Your task to perform on an android device: Empty the shopping cart on walmart. Search for "beats solo 3" on walmart, select the first entry, add it to the cart, then select checkout. Image 0: 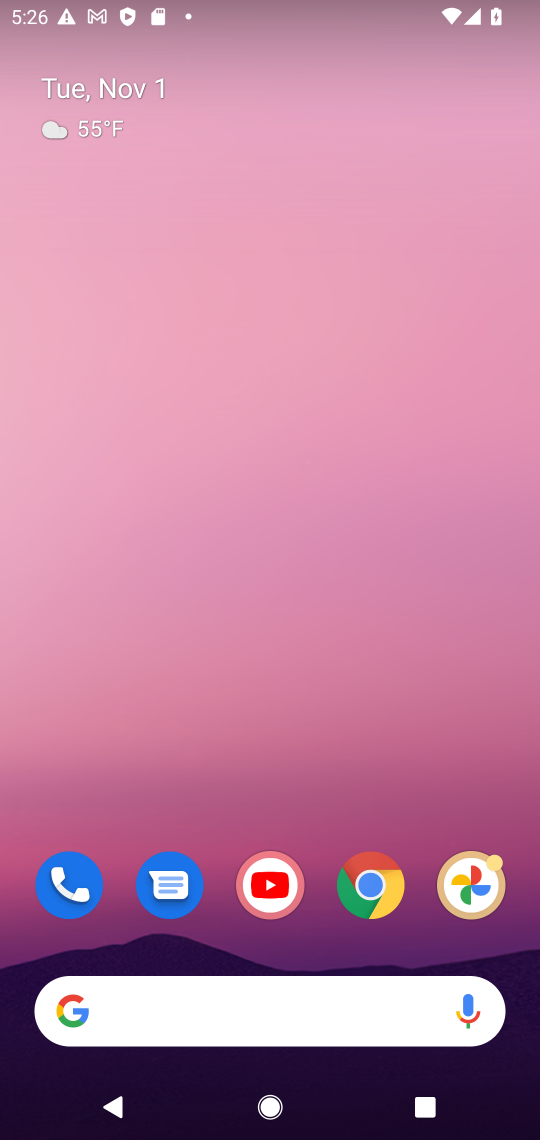
Step 0: click (373, 887)
Your task to perform on an android device: Empty the shopping cart on walmart. Search for "beats solo 3" on walmart, select the first entry, add it to the cart, then select checkout. Image 1: 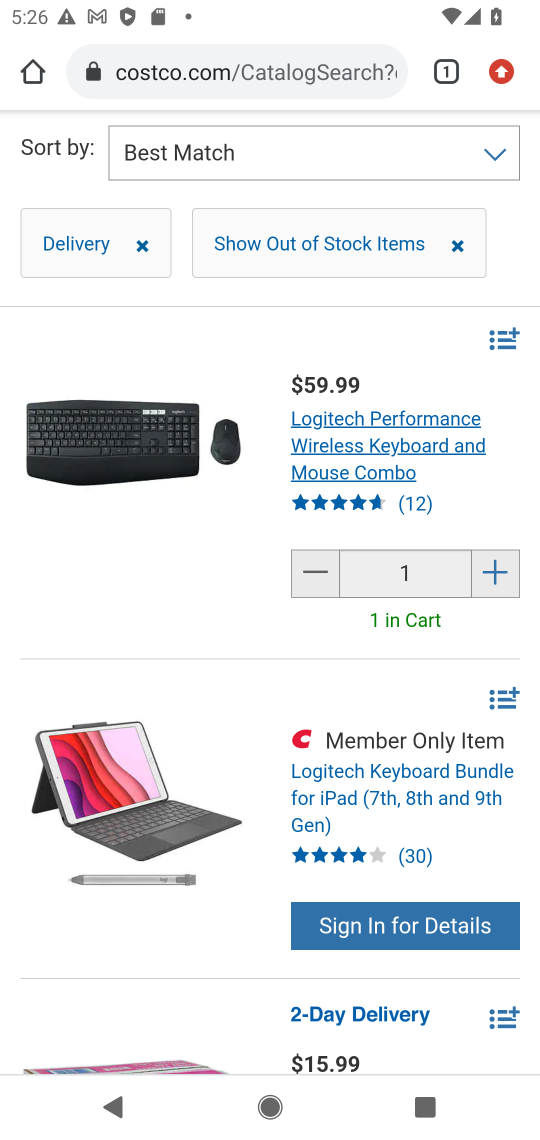
Step 1: click (270, 48)
Your task to perform on an android device: Empty the shopping cart on walmart. Search for "beats solo 3" on walmart, select the first entry, add it to the cart, then select checkout. Image 2: 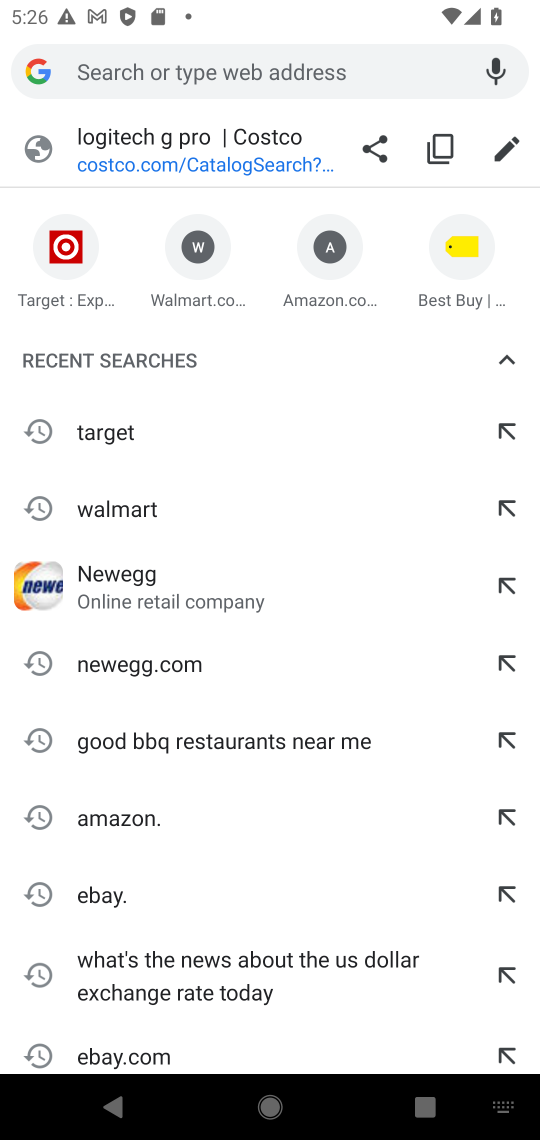
Step 2: click (123, 511)
Your task to perform on an android device: Empty the shopping cart on walmart. Search for "beats solo 3" on walmart, select the first entry, add it to the cart, then select checkout. Image 3: 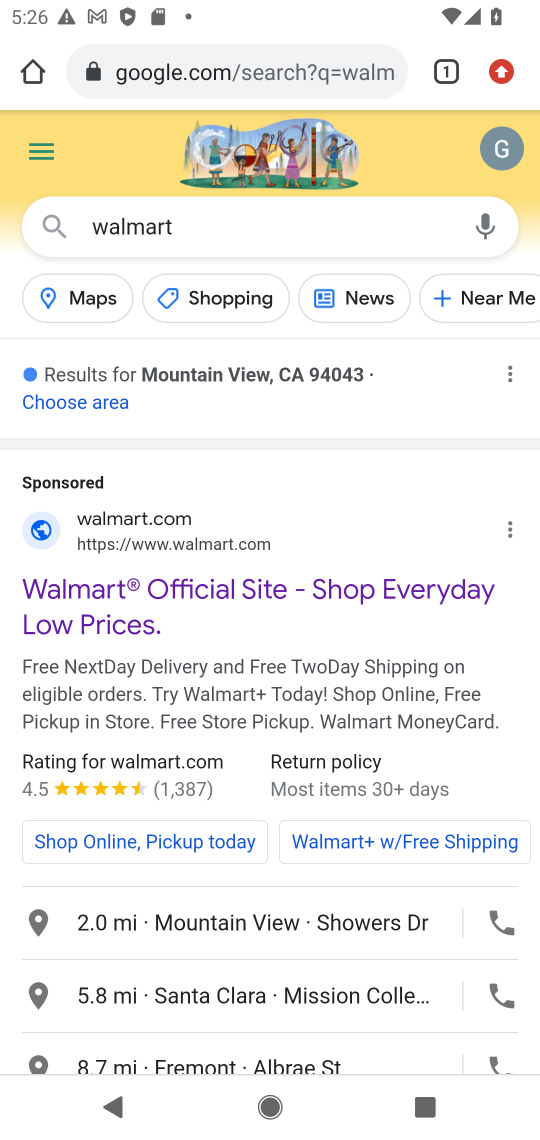
Step 3: click (90, 594)
Your task to perform on an android device: Empty the shopping cart on walmart. Search for "beats solo 3" on walmart, select the first entry, add it to the cart, then select checkout. Image 4: 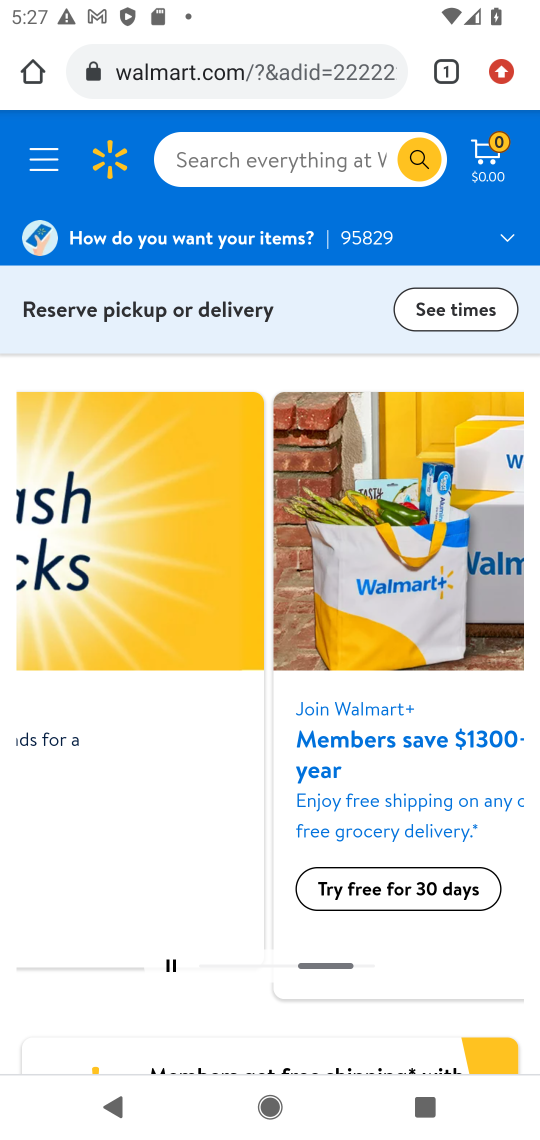
Step 4: click (490, 152)
Your task to perform on an android device: Empty the shopping cart on walmart. Search for "beats solo 3" on walmart, select the first entry, add it to the cart, then select checkout. Image 5: 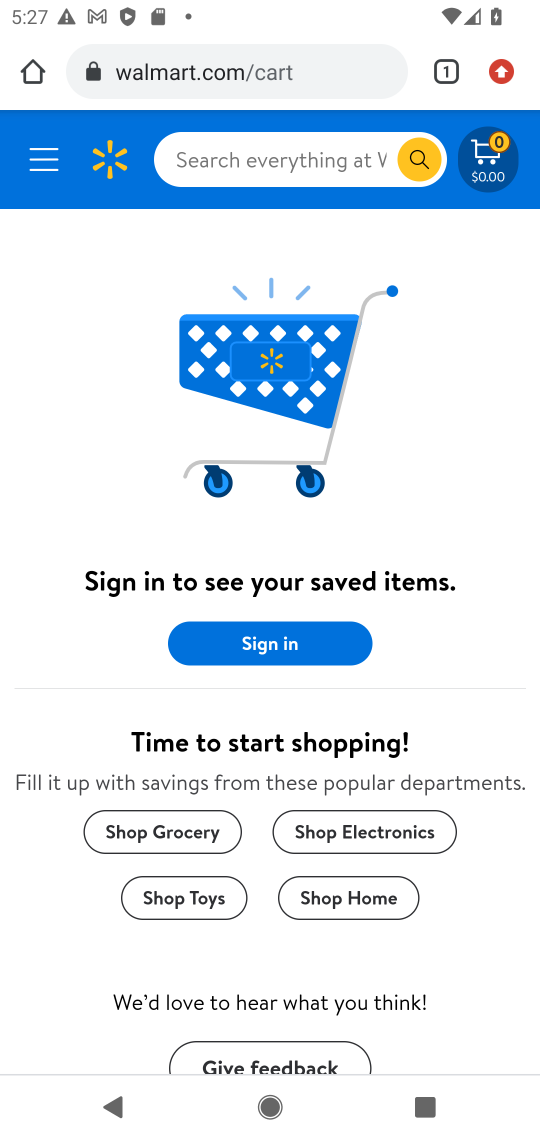
Step 5: click (221, 147)
Your task to perform on an android device: Empty the shopping cart on walmart. Search for "beats solo 3" on walmart, select the first entry, add it to the cart, then select checkout. Image 6: 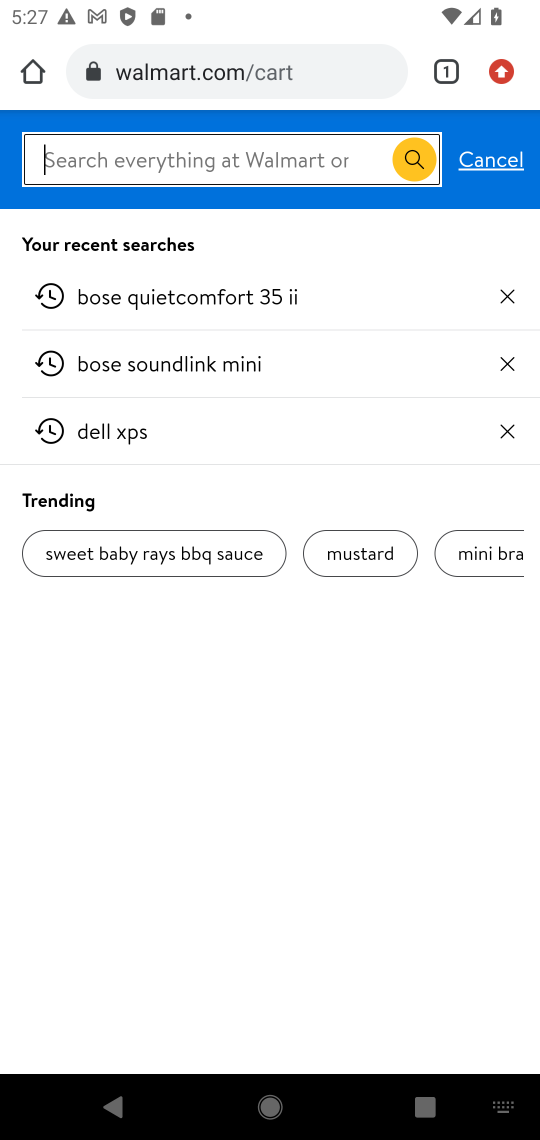
Step 6: type "beats solo 3"
Your task to perform on an android device: Empty the shopping cart on walmart. Search for "beats solo 3" on walmart, select the first entry, add it to the cart, then select checkout. Image 7: 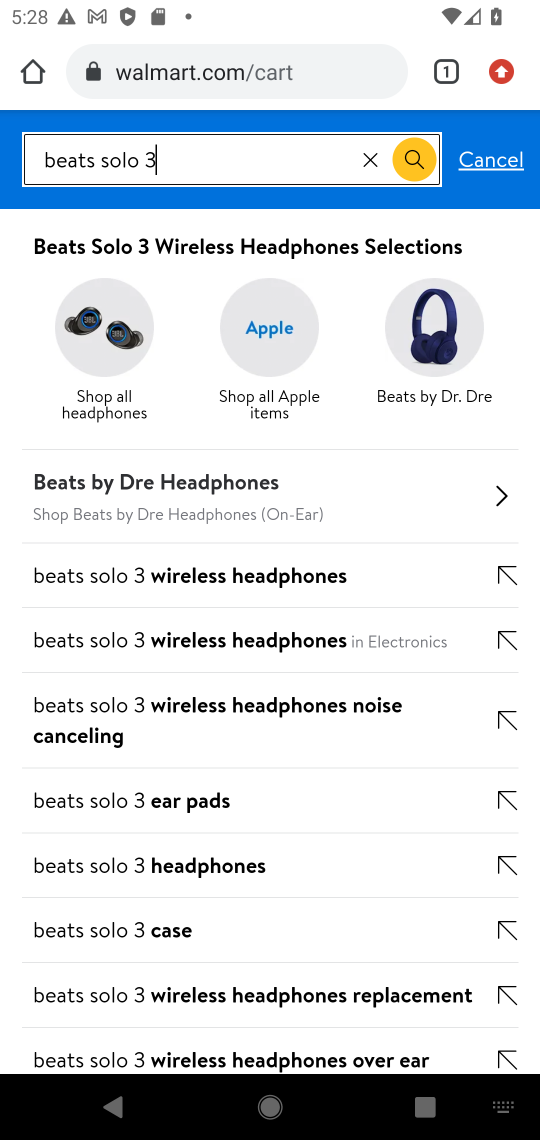
Step 7: click (100, 566)
Your task to perform on an android device: Empty the shopping cart on walmart. Search for "beats solo 3" on walmart, select the first entry, add it to the cart, then select checkout. Image 8: 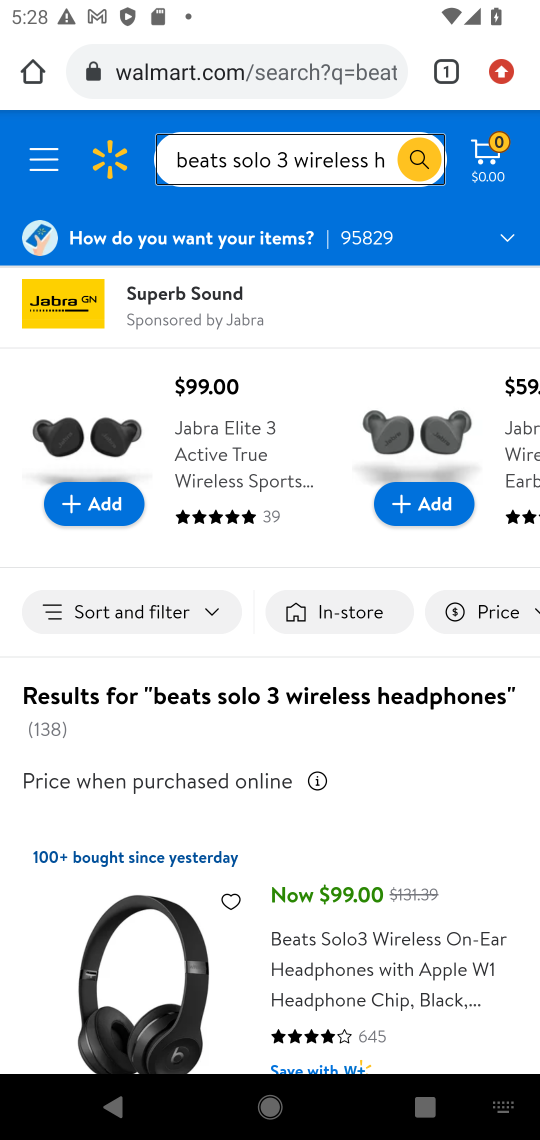
Step 8: drag from (359, 778) to (352, 390)
Your task to perform on an android device: Empty the shopping cart on walmart. Search for "beats solo 3" on walmart, select the first entry, add it to the cart, then select checkout. Image 9: 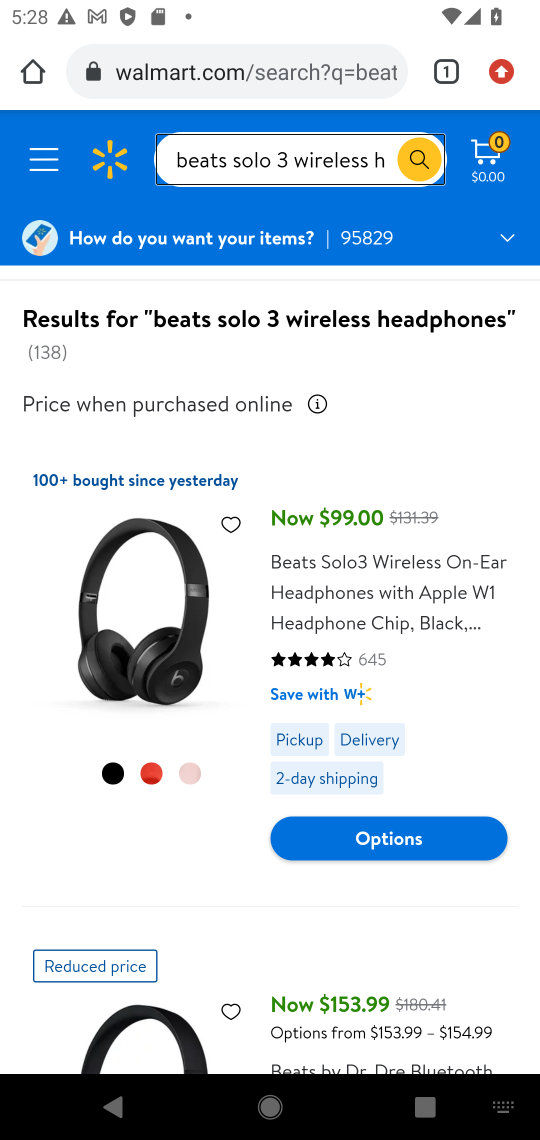
Step 9: click (371, 835)
Your task to perform on an android device: Empty the shopping cart on walmart. Search for "beats solo 3" on walmart, select the first entry, add it to the cart, then select checkout. Image 10: 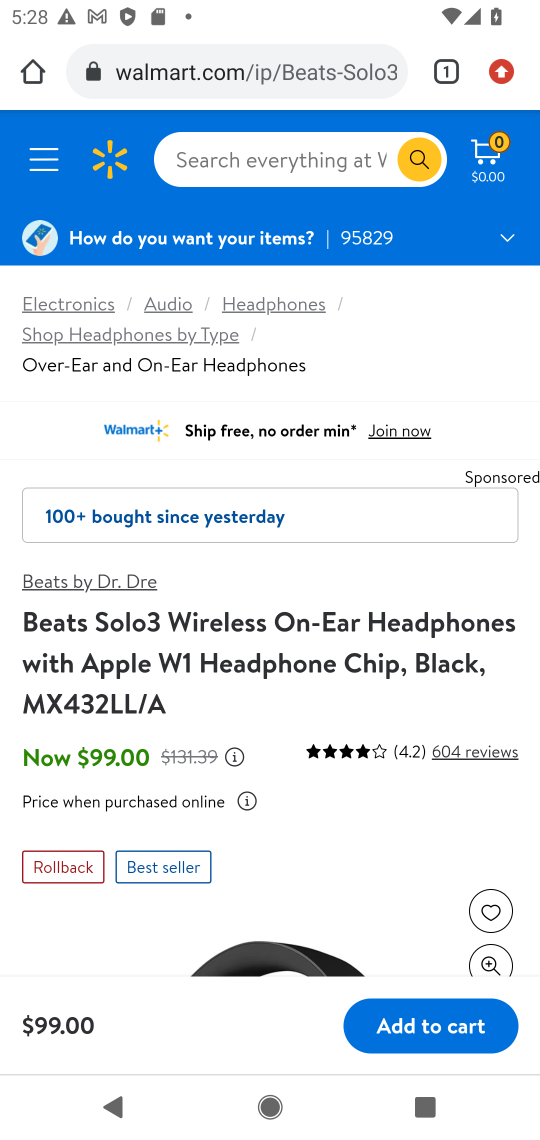
Step 10: click (431, 1028)
Your task to perform on an android device: Empty the shopping cart on walmart. Search for "beats solo 3" on walmart, select the first entry, add it to the cart, then select checkout. Image 11: 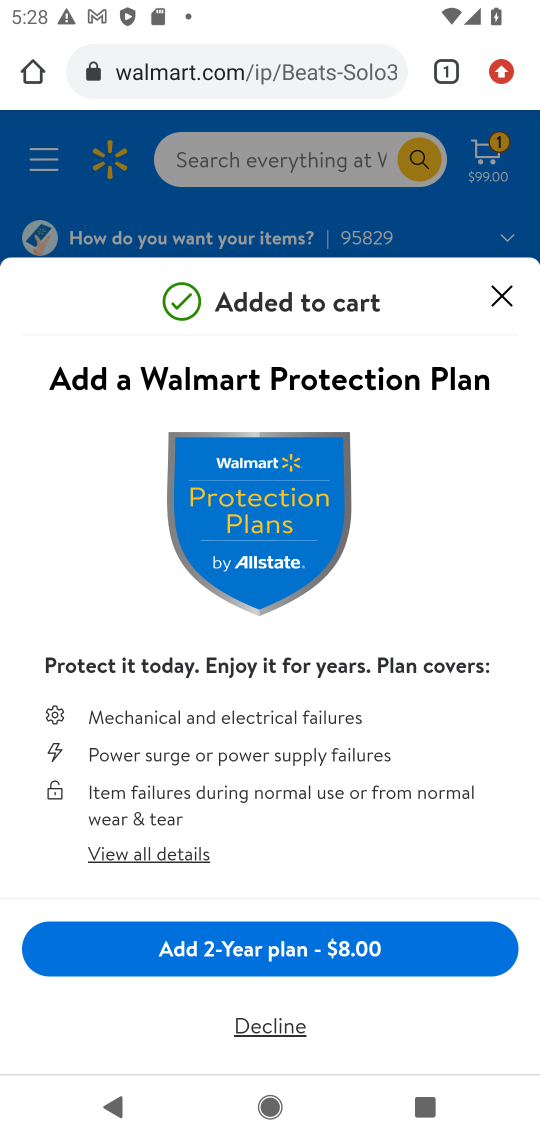
Step 11: click (274, 1034)
Your task to perform on an android device: Empty the shopping cart on walmart. Search for "beats solo 3" on walmart, select the first entry, add it to the cart, then select checkout. Image 12: 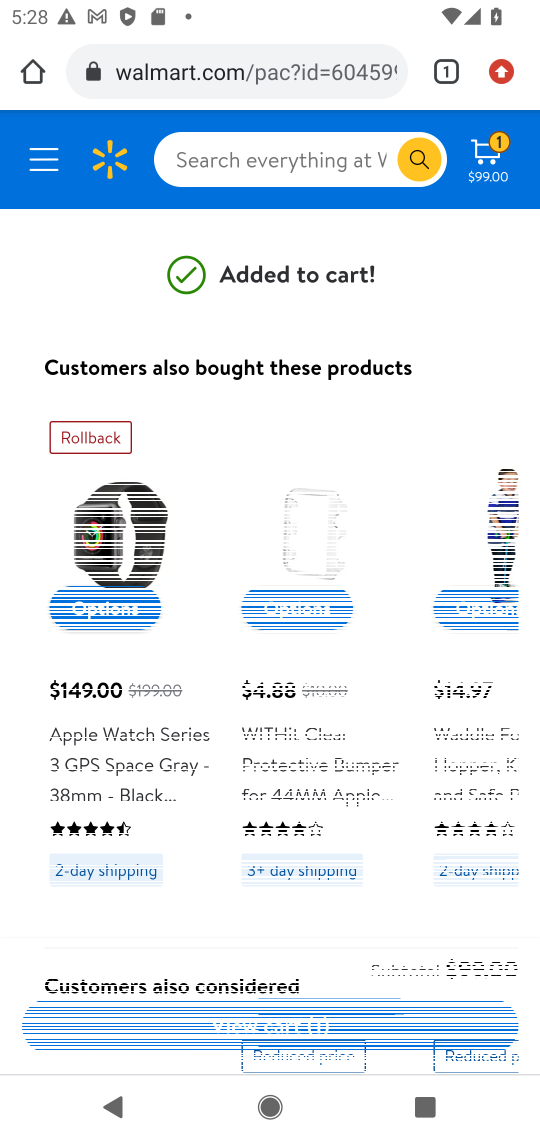
Step 12: click (478, 158)
Your task to perform on an android device: Empty the shopping cart on walmart. Search for "beats solo 3" on walmart, select the first entry, add it to the cart, then select checkout. Image 13: 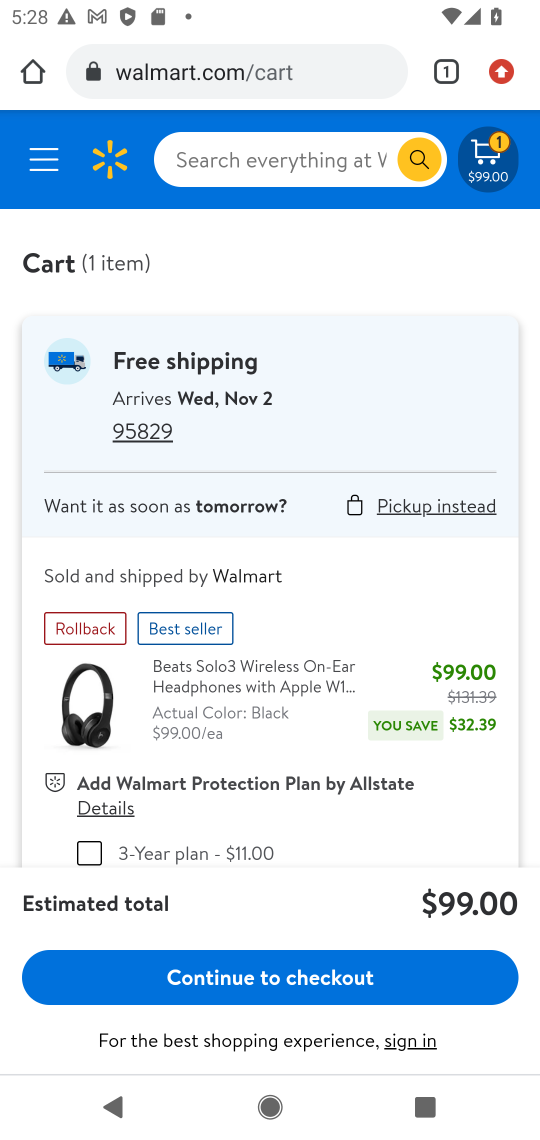
Step 13: click (264, 973)
Your task to perform on an android device: Empty the shopping cart on walmart. Search for "beats solo 3" on walmart, select the first entry, add it to the cart, then select checkout. Image 14: 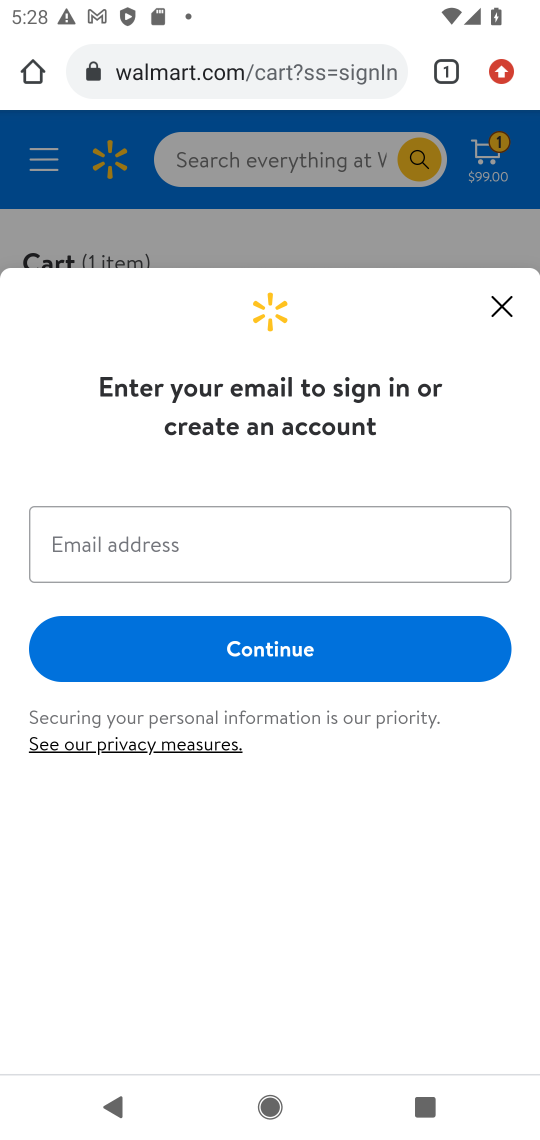
Step 14: task complete